Your task to perform on an android device: make emails show in primary in the gmail app Image 0: 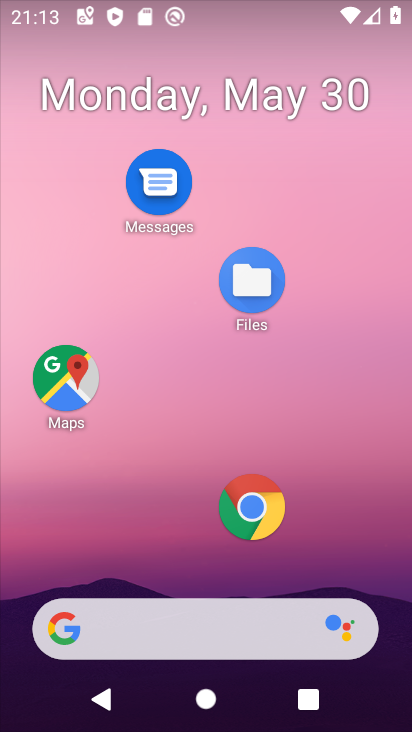
Step 0: drag from (156, 548) to (173, 106)
Your task to perform on an android device: make emails show in primary in the gmail app Image 1: 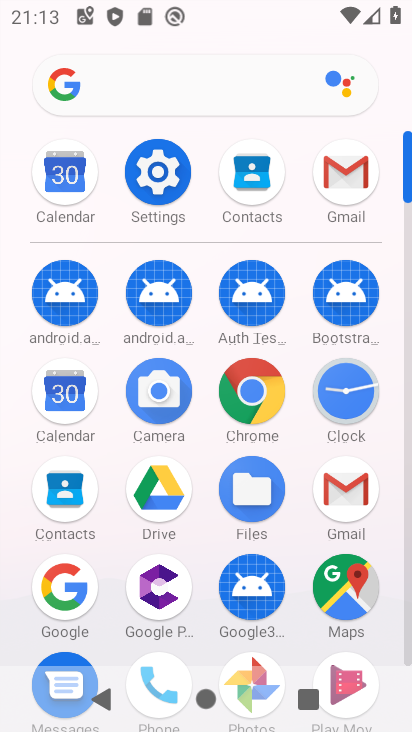
Step 1: click (352, 477)
Your task to perform on an android device: make emails show in primary in the gmail app Image 2: 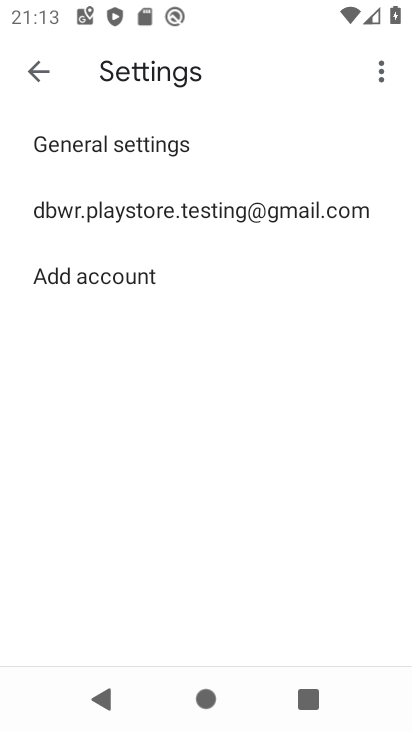
Step 2: click (34, 54)
Your task to perform on an android device: make emails show in primary in the gmail app Image 3: 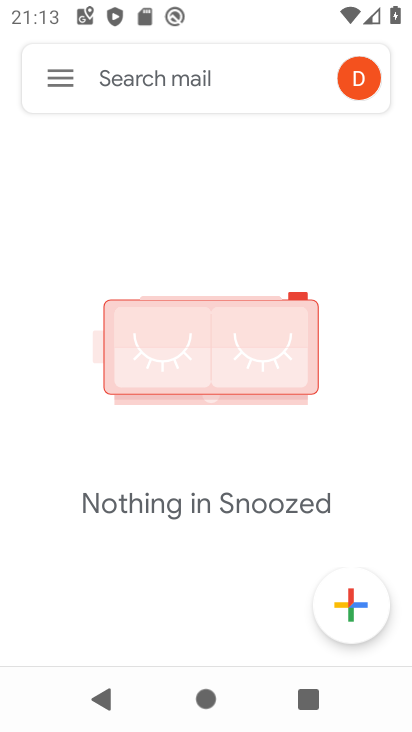
Step 3: click (55, 74)
Your task to perform on an android device: make emails show in primary in the gmail app Image 4: 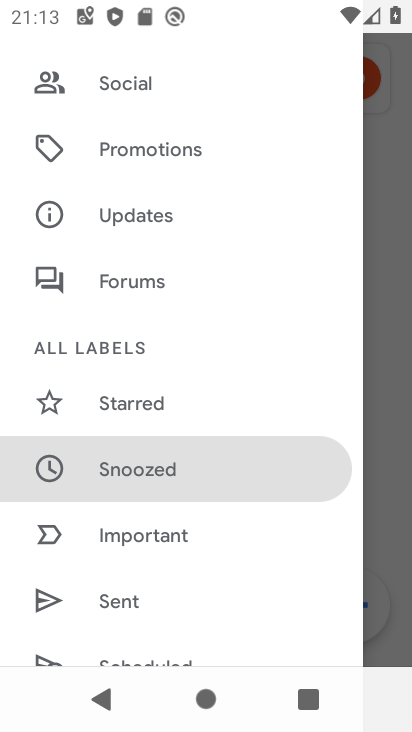
Step 4: drag from (135, 556) to (304, 17)
Your task to perform on an android device: make emails show in primary in the gmail app Image 5: 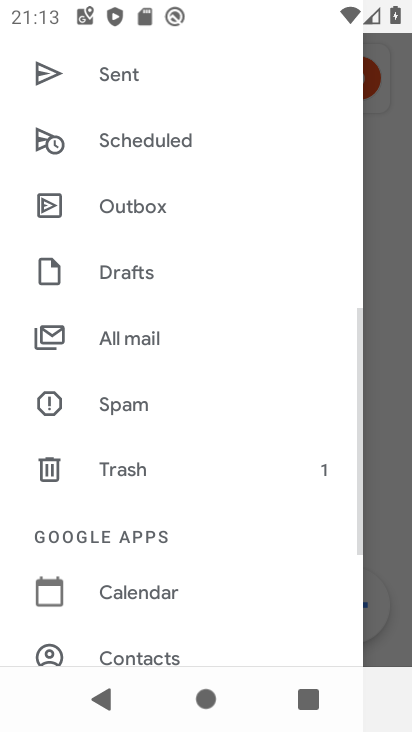
Step 5: drag from (161, 589) to (172, 117)
Your task to perform on an android device: make emails show in primary in the gmail app Image 6: 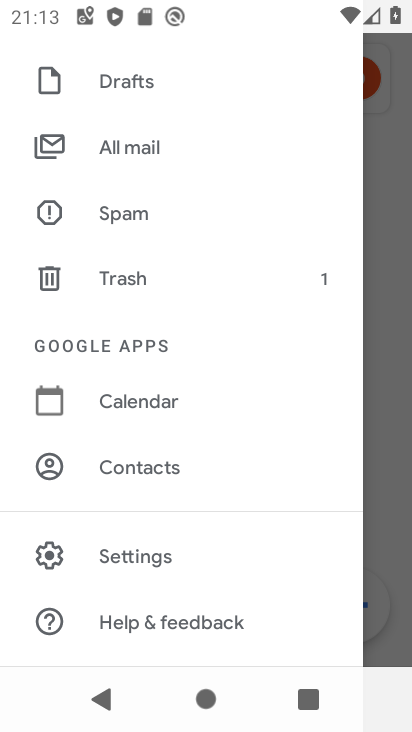
Step 6: click (160, 567)
Your task to perform on an android device: make emails show in primary in the gmail app Image 7: 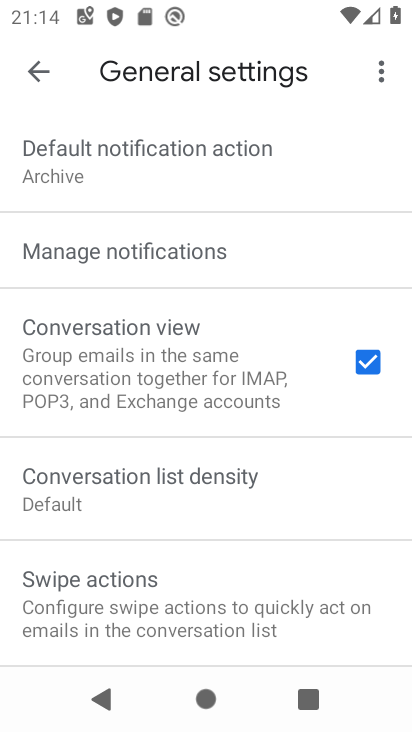
Step 7: click (33, 64)
Your task to perform on an android device: make emails show in primary in the gmail app Image 8: 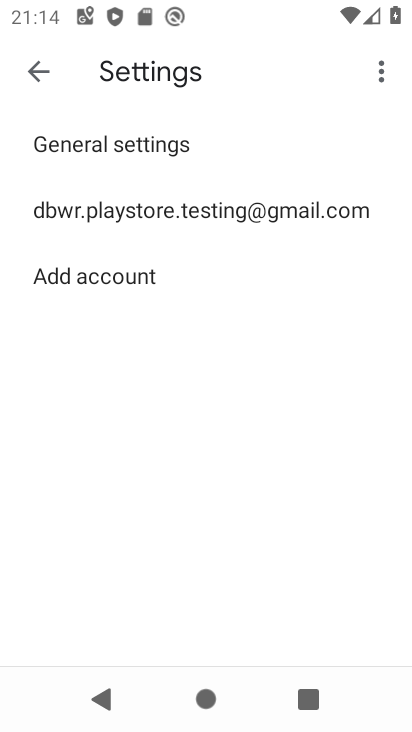
Step 8: click (182, 209)
Your task to perform on an android device: make emails show in primary in the gmail app Image 9: 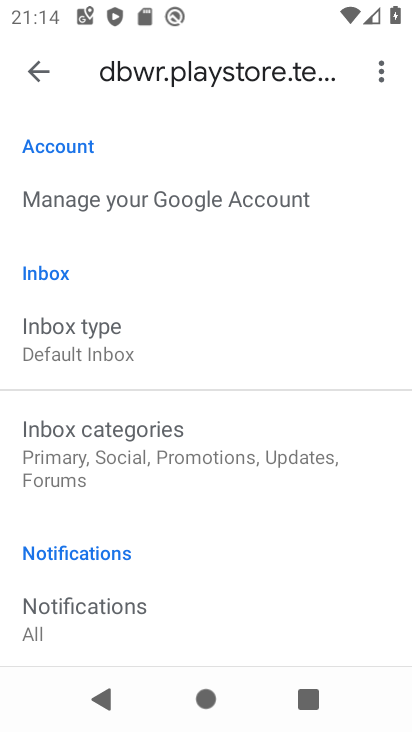
Step 9: click (114, 359)
Your task to perform on an android device: make emails show in primary in the gmail app Image 10: 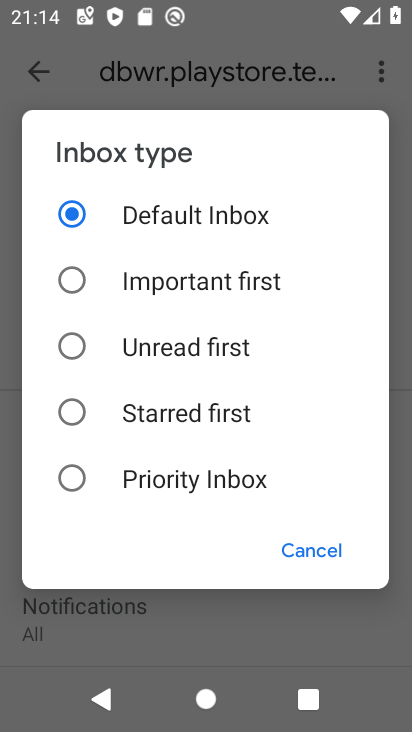
Step 10: click (336, 557)
Your task to perform on an android device: make emails show in primary in the gmail app Image 11: 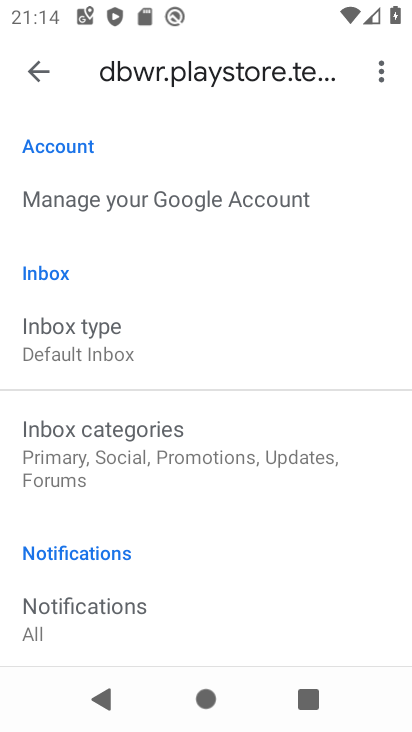
Step 11: click (176, 455)
Your task to perform on an android device: make emails show in primary in the gmail app Image 12: 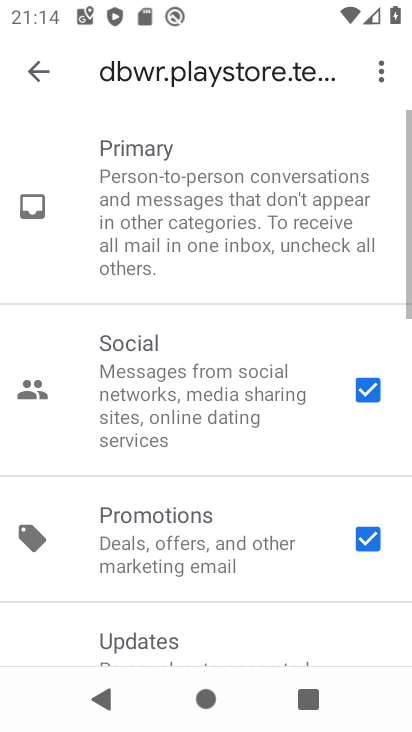
Step 12: click (375, 385)
Your task to perform on an android device: make emails show in primary in the gmail app Image 13: 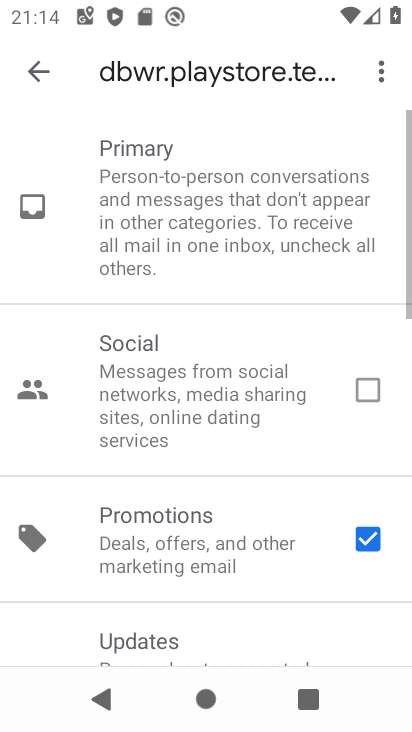
Step 13: click (367, 547)
Your task to perform on an android device: make emails show in primary in the gmail app Image 14: 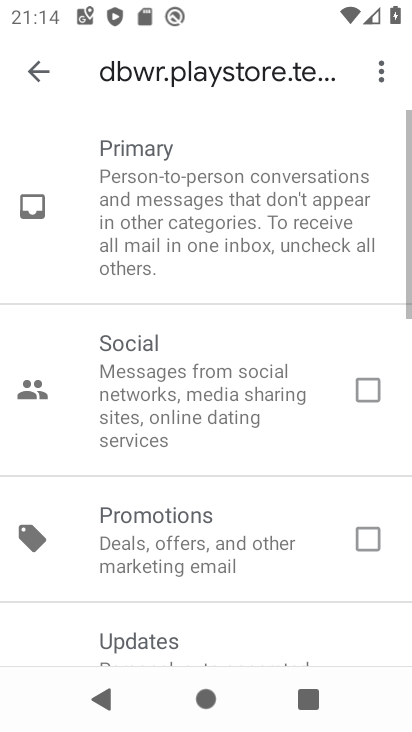
Step 14: drag from (295, 549) to (290, 0)
Your task to perform on an android device: make emails show in primary in the gmail app Image 15: 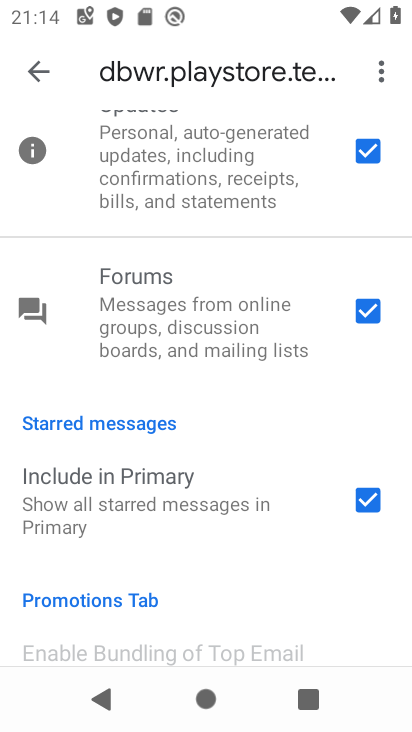
Step 15: click (367, 301)
Your task to perform on an android device: make emails show in primary in the gmail app Image 16: 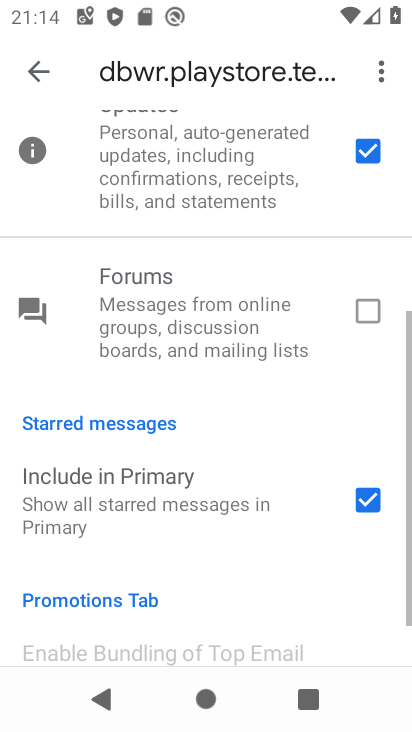
Step 16: click (356, 504)
Your task to perform on an android device: make emails show in primary in the gmail app Image 17: 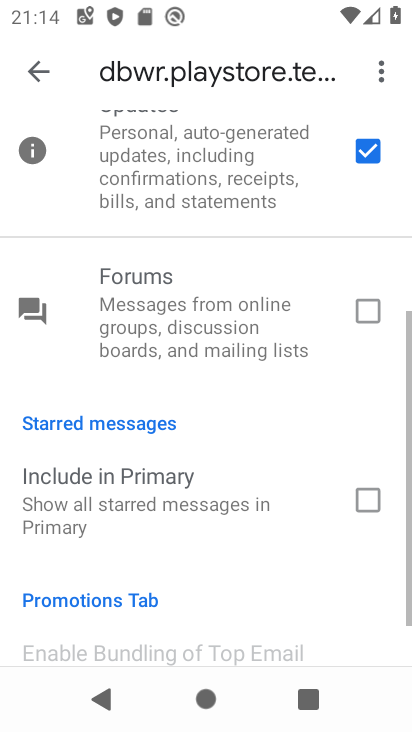
Step 17: click (367, 152)
Your task to perform on an android device: make emails show in primary in the gmail app Image 18: 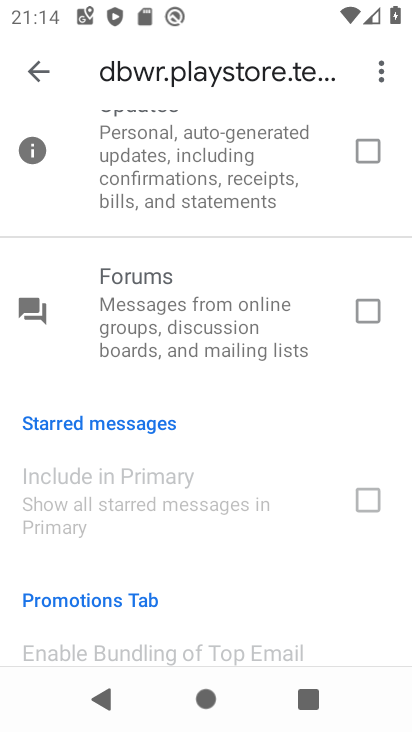
Step 18: task complete